Your task to perform on an android device: turn off picture-in-picture Image 0: 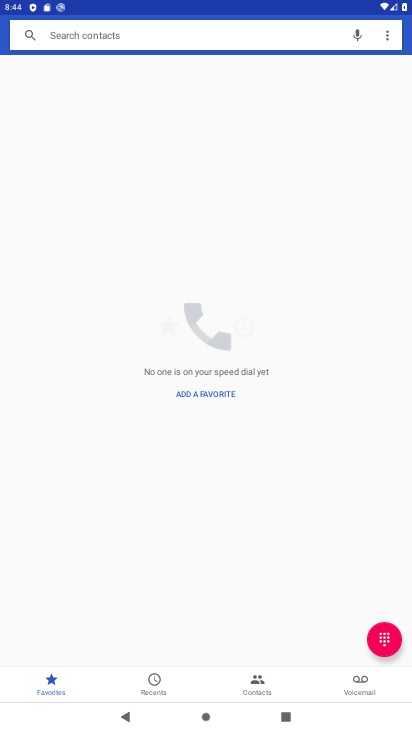
Step 0: press home button
Your task to perform on an android device: turn off picture-in-picture Image 1: 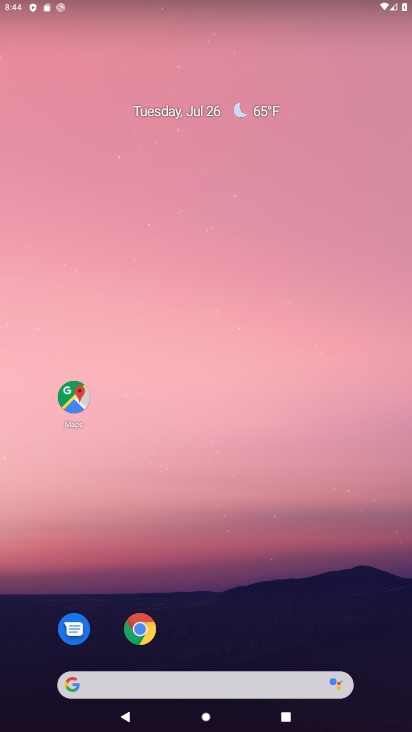
Step 1: click (131, 636)
Your task to perform on an android device: turn off picture-in-picture Image 2: 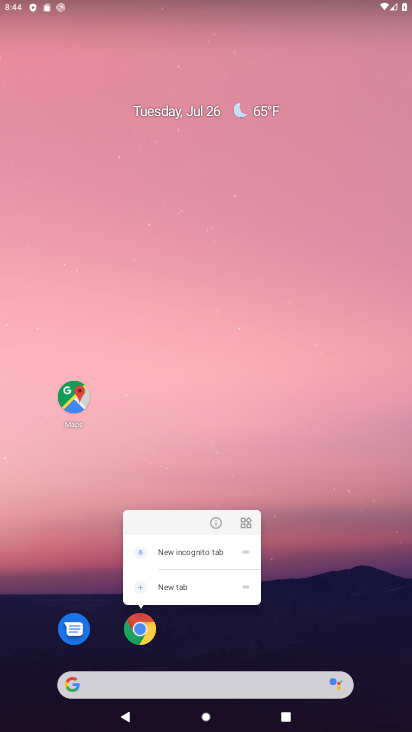
Step 2: click (216, 525)
Your task to perform on an android device: turn off picture-in-picture Image 3: 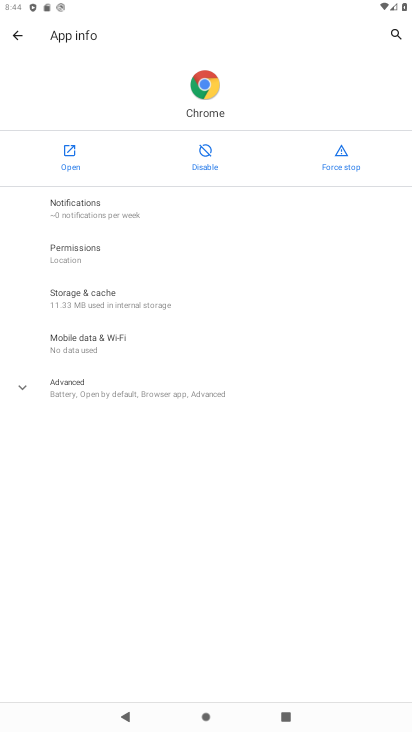
Step 3: click (99, 393)
Your task to perform on an android device: turn off picture-in-picture Image 4: 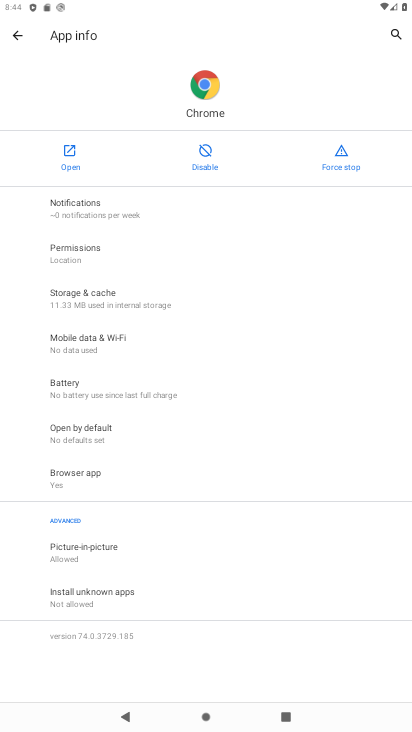
Step 4: click (87, 553)
Your task to perform on an android device: turn off picture-in-picture Image 5: 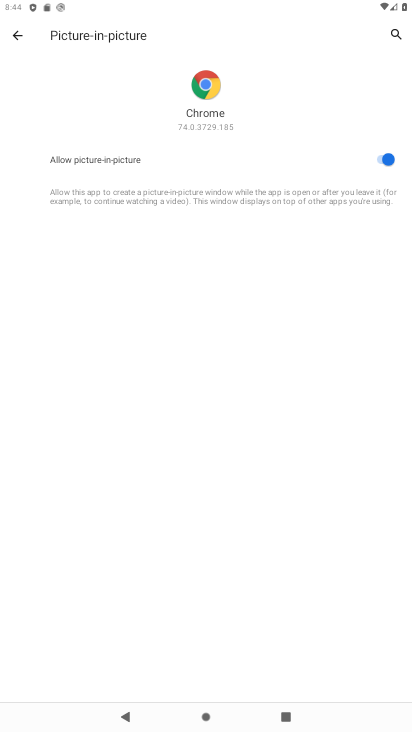
Step 5: click (379, 163)
Your task to perform on an android device: turn off picture-in-picture Image 6: 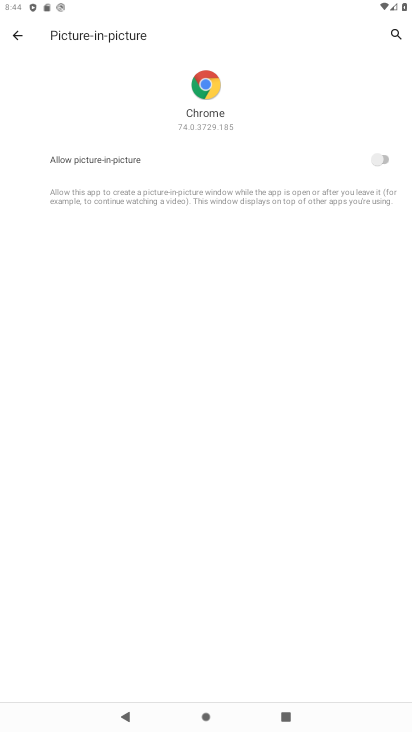
Step 6: task complete